Your task to perform on an android device: Open the calendar and show me this week's events Image 0: 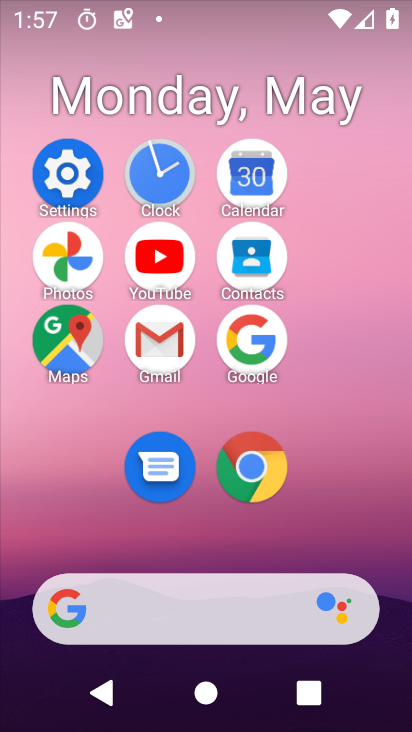
Step 0: click (261, 166)
Your task to perform on an android device: Open the calendar and show me this week's events Image 1: 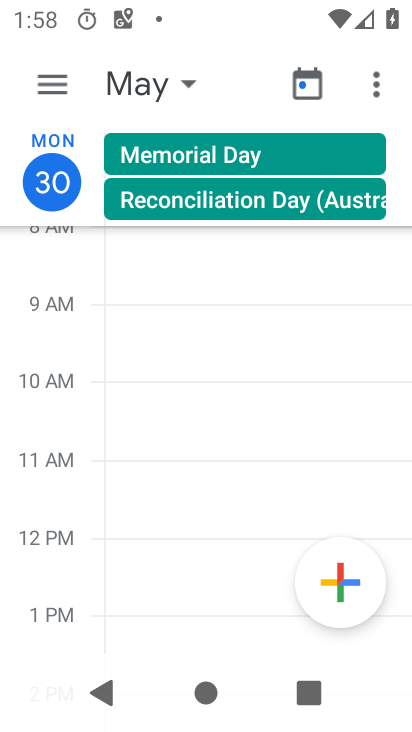
Step 1: click (64, 102)
Your task to perform on an android device: Open the calendar and show me this week's events Image 2: 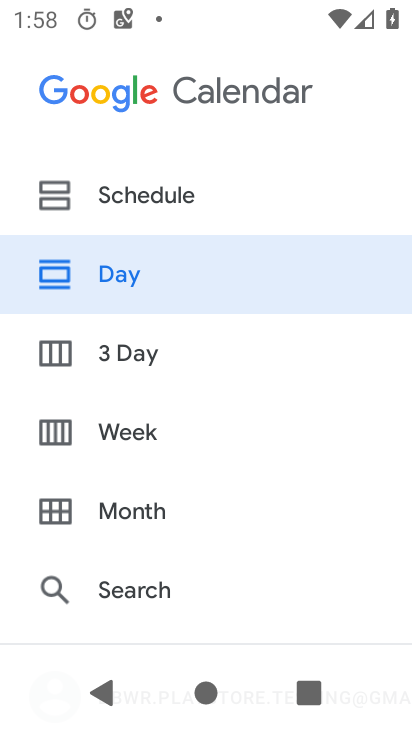
Step 2: click (147, 423)
Your task to perform on an android device: Open the calendar and show me this week's events Image 3: 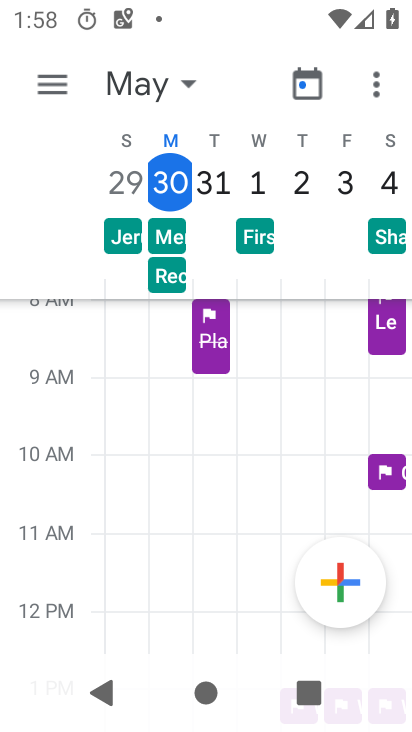
Step 3: task complete